Your task to perform on an android device: Search for hotels in Mexico city Image 0: 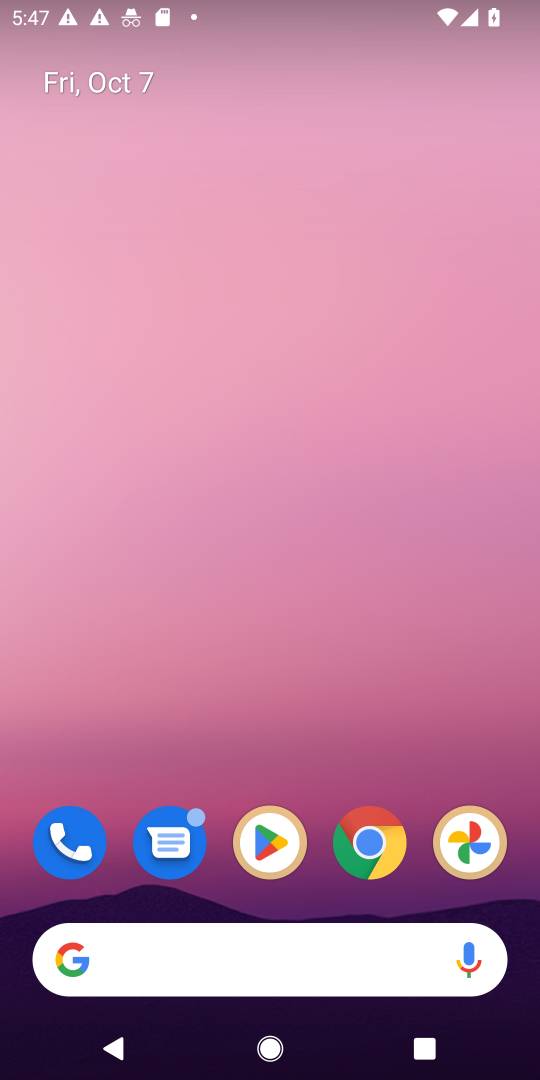
Step 0: drag from (108, 922) to (249, 7)
Your task to perform on an android device: Search for hotels in Mexico city Image 1: 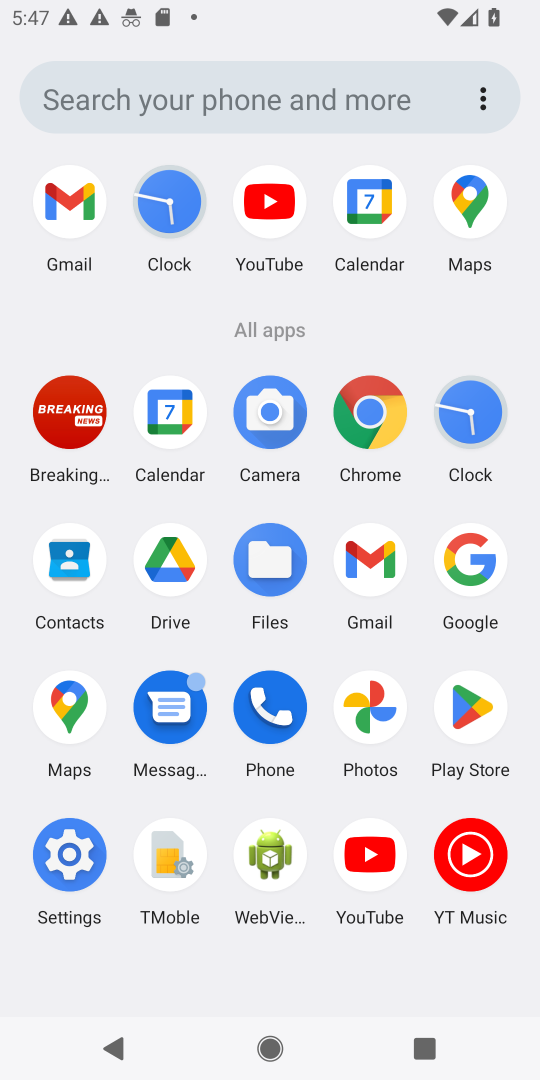
Step 1: click (471, 542)
Your task to perform on an android device: Search for hotels in Mexico city Image 2: 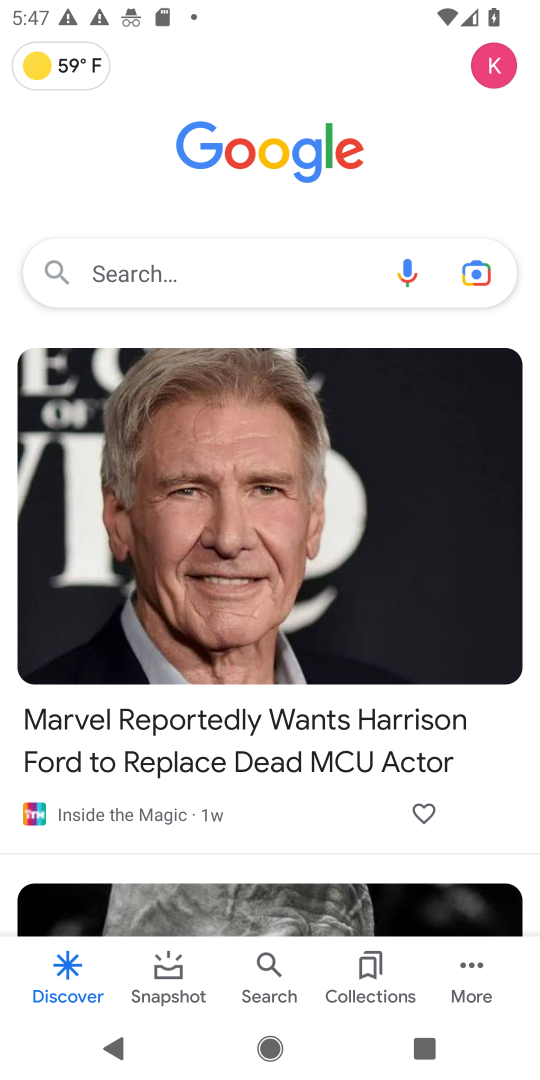
Step 2: click (128, 278)
Your task to perform on an android device: Search for hotels in Mexico city Image 3: 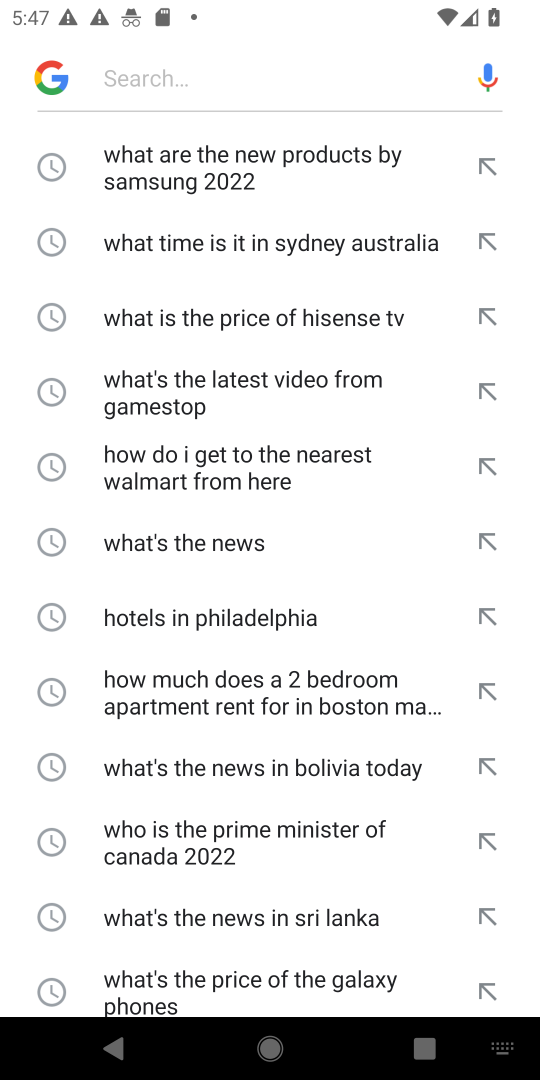
Step 3: type "hotels in Mexico city"
Your task to perform on an android device: Search for hotels in Mexico city Image 4: 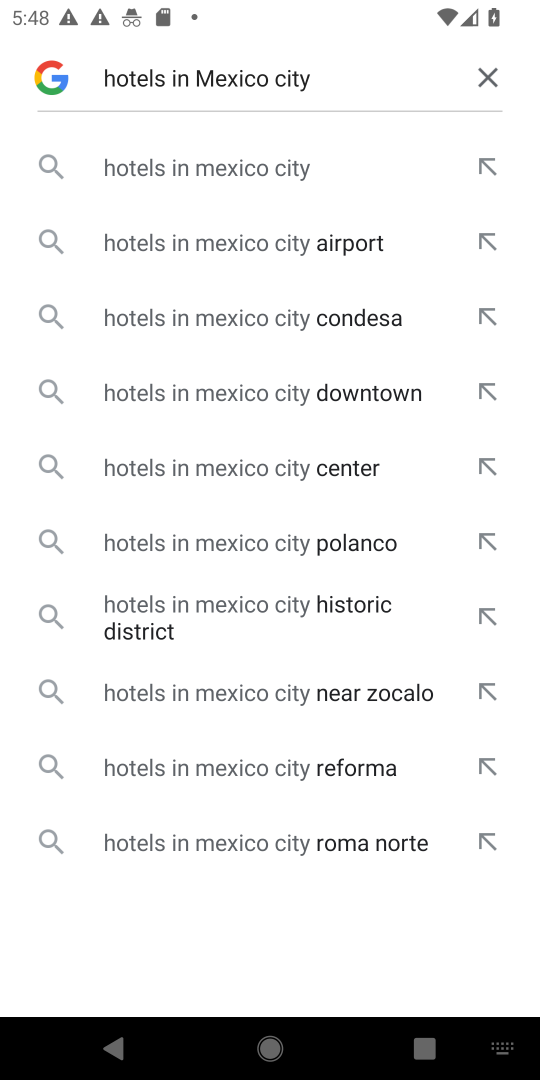
Step 4: click (214, 173)
Your task to perform on an android device: Search for hotels in Mexico city Image 5: 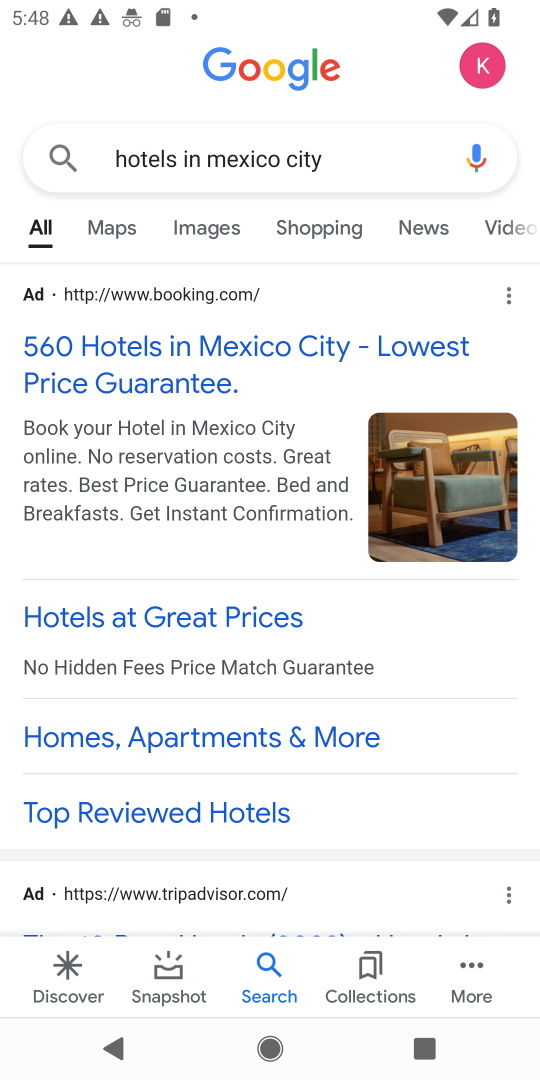
Step 5: task complete